Your task to perform on an android device: Go to Amazon Image 0: 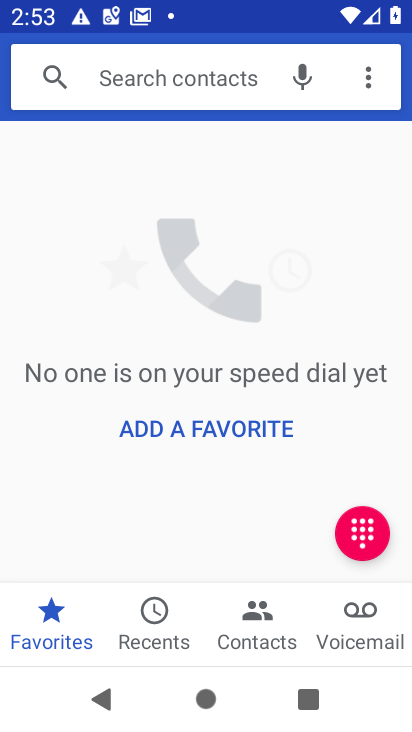
Step 0: press home button
Your task to perform on an android device: Go to Amazon Image 1: 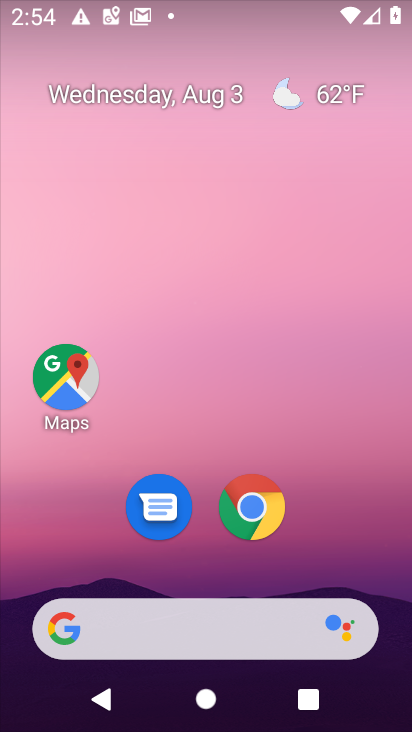
Step 1: click (245, 517)
Your task to perform on an android device: Go to Amazon Image 2: 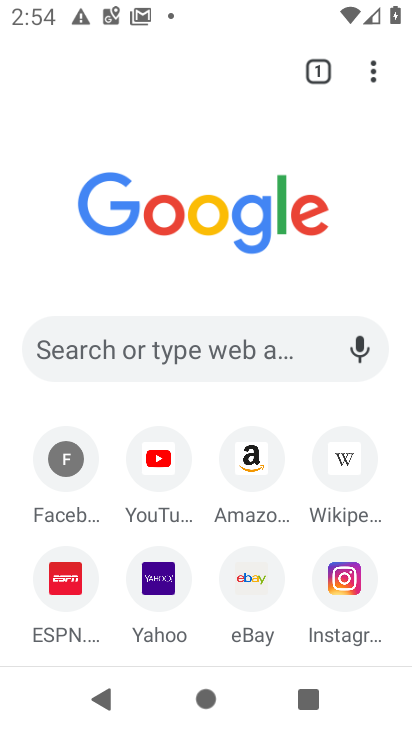
Step 2: click (243, 465)
Your task to perform on an android device: Go to Amazon Image 3: 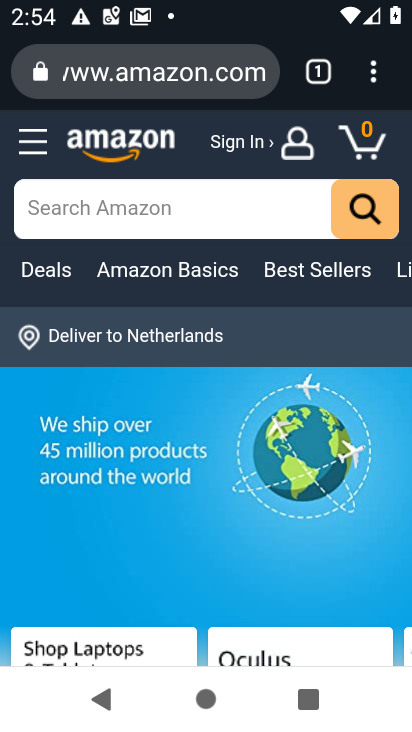
Step 3: task complete